Your task to perform on an android device: change the clock display to digital Image 0: 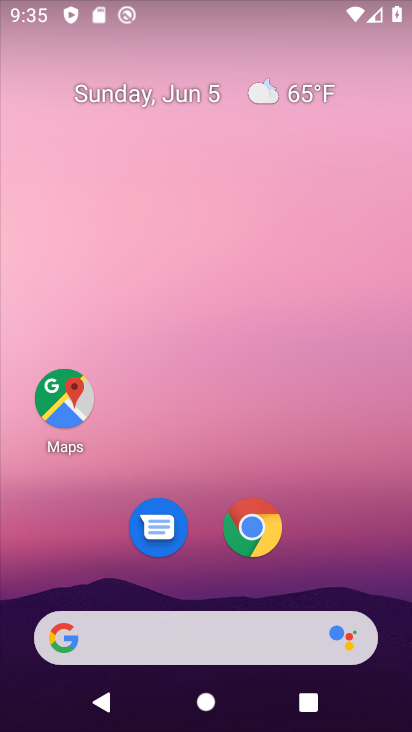
Step 0: drag from (167, 572) to (243, 115)
Your task to perform on an android device: change the clock display to digital Image 1: 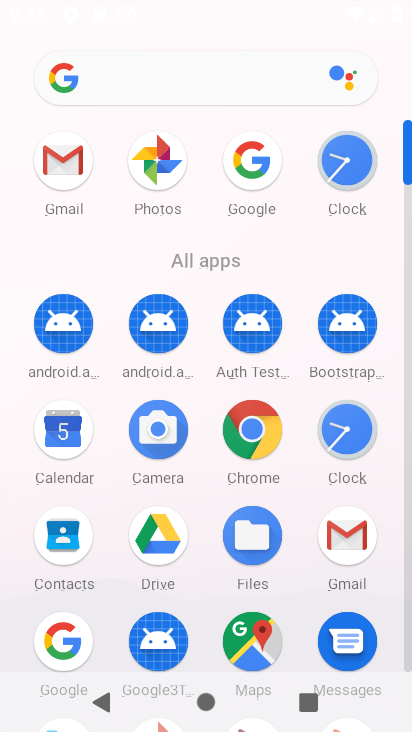
Step 1: click (334, 170)
Your task to perform on an android device: change the clock display to digital Image 2: 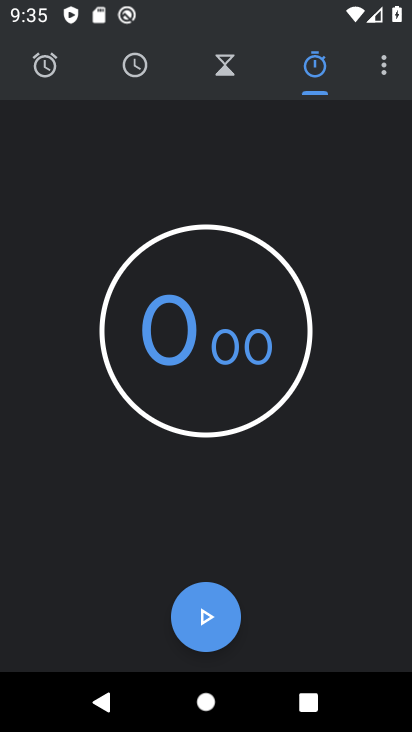
Step 2: click (381, 55)
Your task to perform on an android device: change the clock display to digital Image 3: 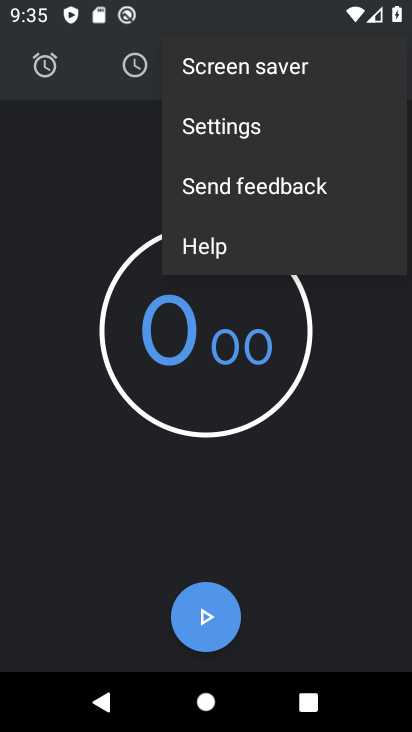
Step 3: click (261, 118)
Your task to perform on an android device: change the clock display to digital Image 4: 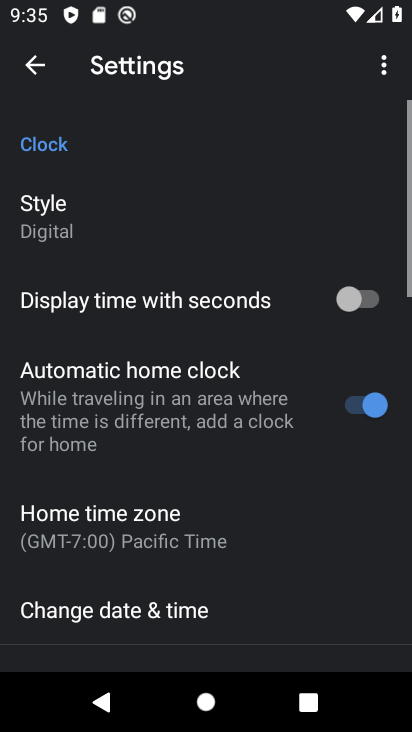
Step 4: click (53, 227)
Your task to perform on an android device: change the clock display to digital Image 5: 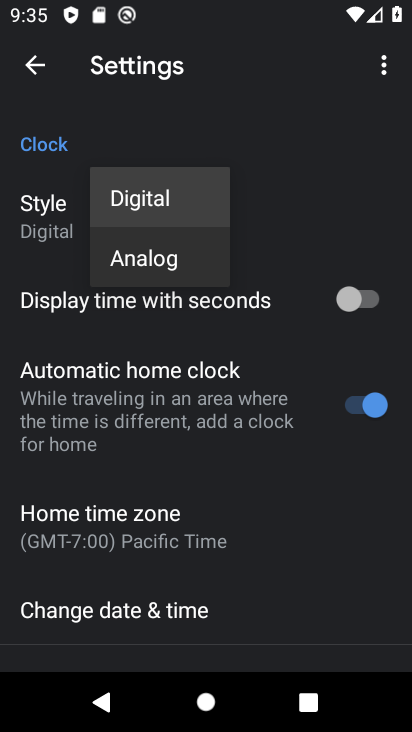
Step 5: click (132, 259)
Your task to perform on an android device: change the clock display to digital Image 6: 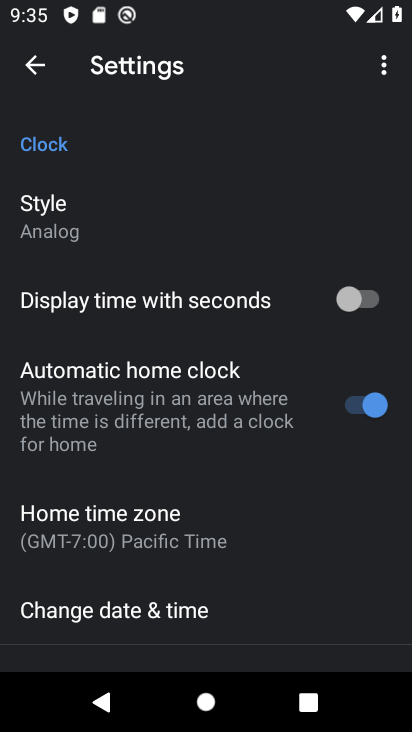
Step 6: task complete